Your task to perform on an android device: check the backup settings in the google photos Image 0: 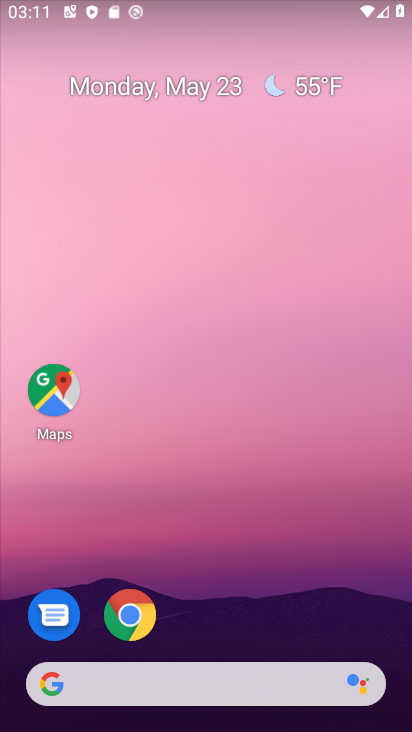
Step 0: drag from (372, 612) to (362, 119)
Your task to perform on an android device: check the backup settings in the google photos Image 1: 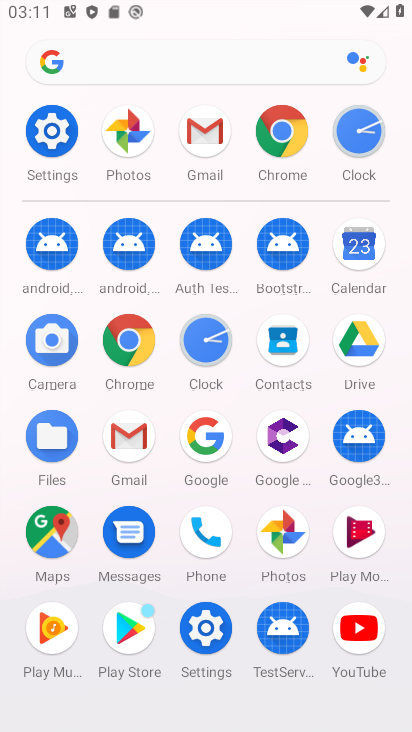
Step 1: click (285, 533)
Your task to perform on an android device: check the backup settings in the google photos Image 2: 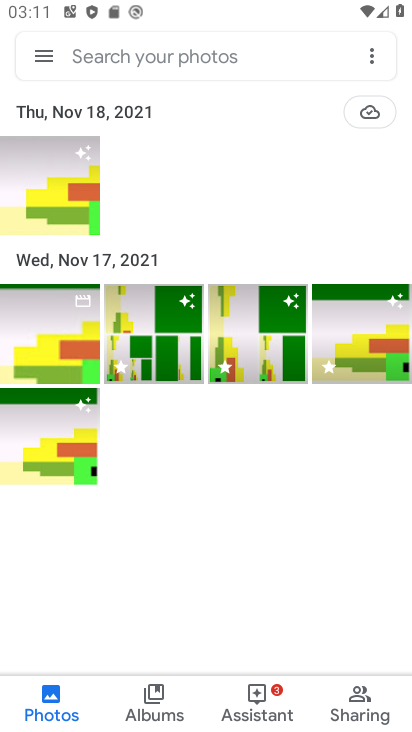
Step 2: click (35, 47)
Your task to perform on an android device: check the backup settings in the google photos Image 3: 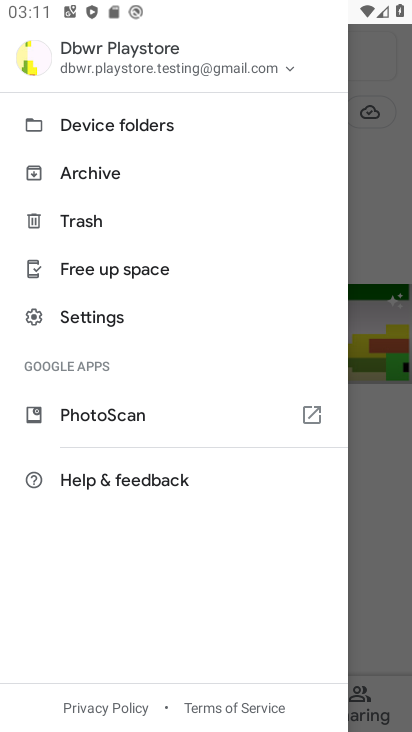
Step 3: drag from (242, 570) to (255, 296)
Your task to perform on an android device: check the backup settings in the google photos Image 4: 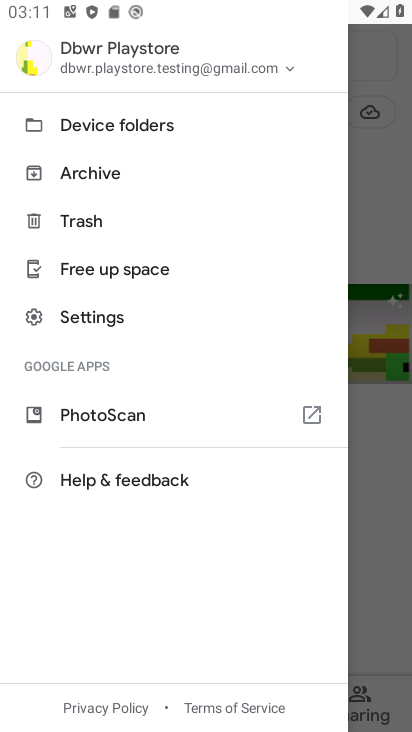
Step 4: drag from (254, 216) to (217, 432)
Your task to perform on an android device: check the backup settings in the google photos Image 5: 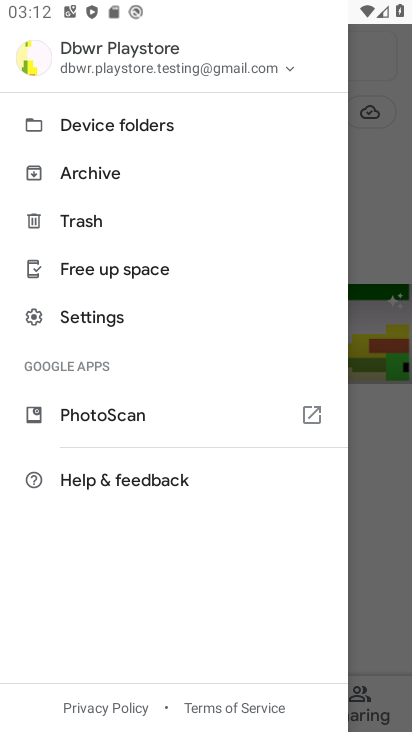
Step 5: drag from (222, 225) to (229, 482)
Your task to perform on an android device: check the backup settings in the google photos Image 6: 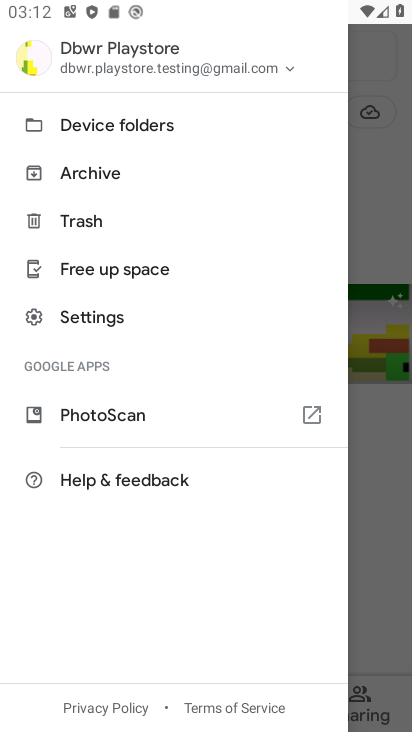
Step 6: click (117, 313)
Your task to perform on an android device: check the backup settings in the google photos Image 7: 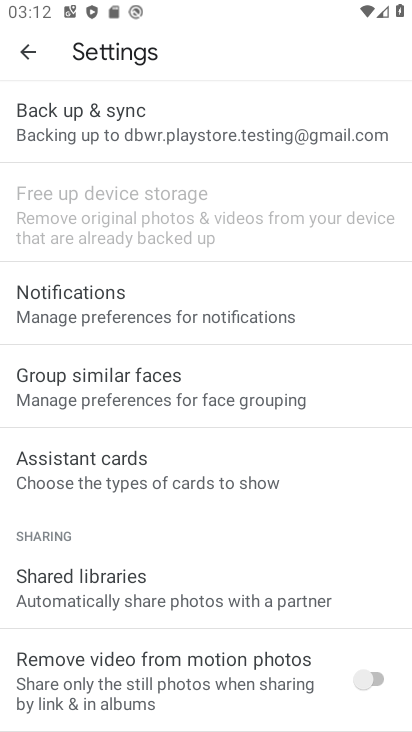
Step 7: drag from (325, 534) to (329, 383)
Your task to perform on an android device: check the backup settings in the google photos Image 8: 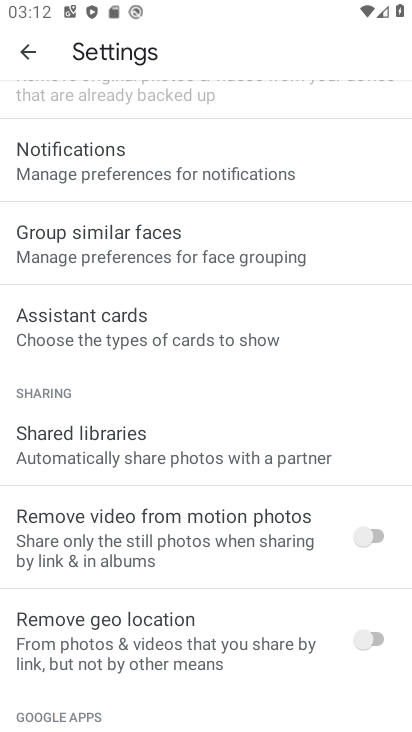
Step 8: drag from (327, 566) to (327, 437)
Your task to perform on an android device: check the backup settings in the google photos Image 9: 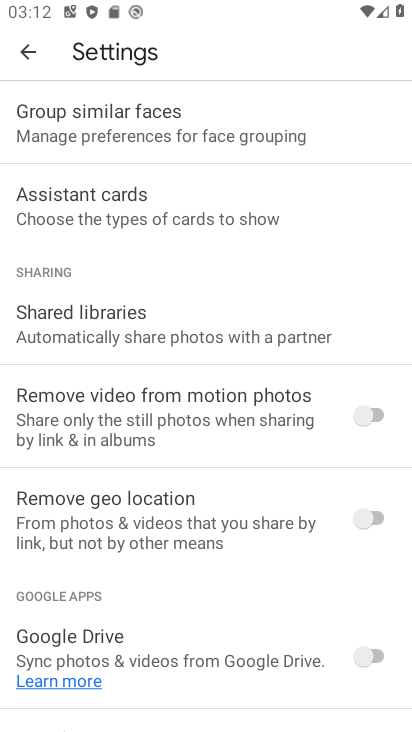
Step 9: drag from (320, 616) to (305, 425)
Your task to perform on an android device: check the backup settings in the google photos Image 10: 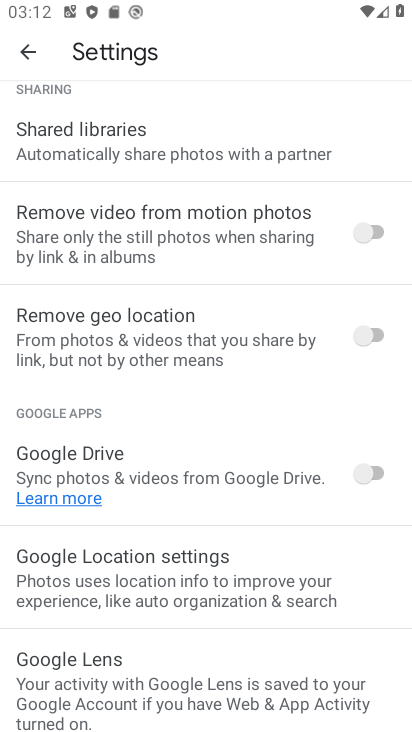
Step 10: drag from (315, 648) to (318, 496)
Your task to perform on an android device: check the backup settings in the google photos Image 11: 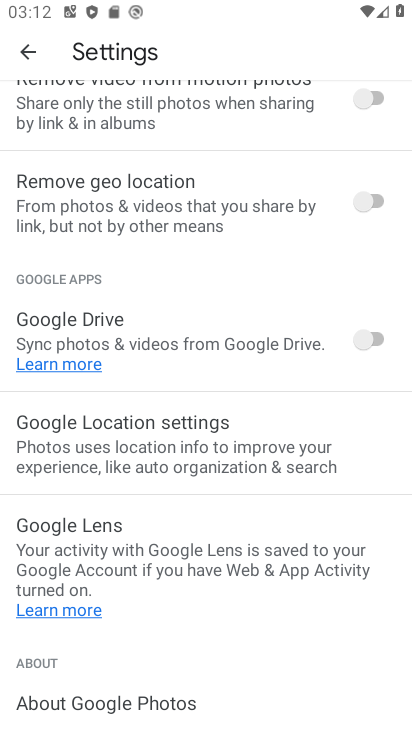
Step 11: drag from (324, 669) to (327, 499)
Your task to perform on an android device: check the backup settings in the google photos Image 12: 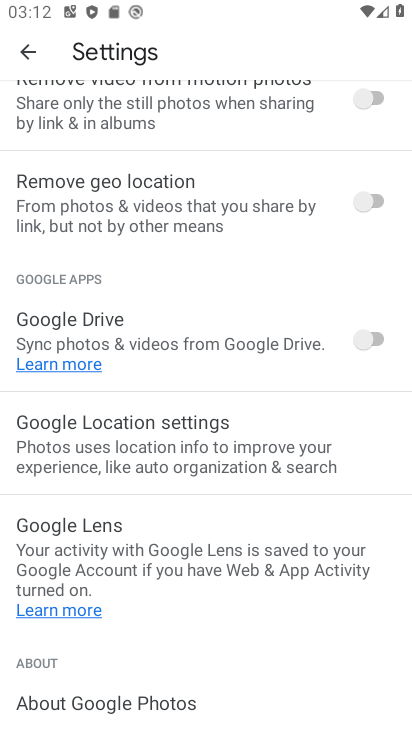
Step 12: drag from (319, 278) to (302, 457)
Your task to perform on an android device: check the backup settings in the google photos Image 13: 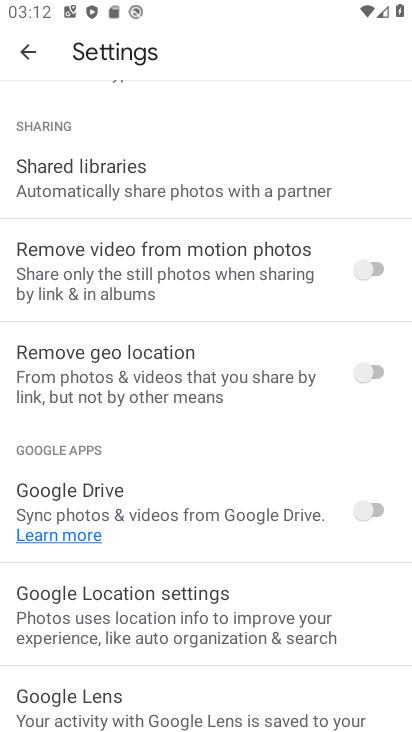
Step 13: drag from (324, 230) to (328, 388)
Your task to perform on an android device: check the backup settings in the google photos Image 14: 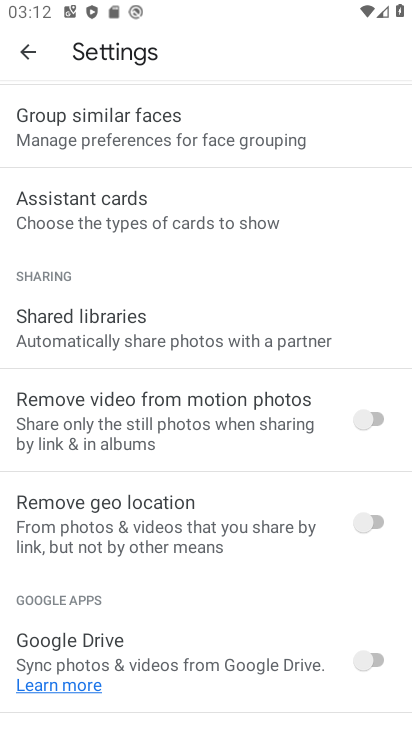
Step 14: drag from (337, 209) to (319, 361)
Your task to perform on an android device: check the backup settings in the google photos Image 15: 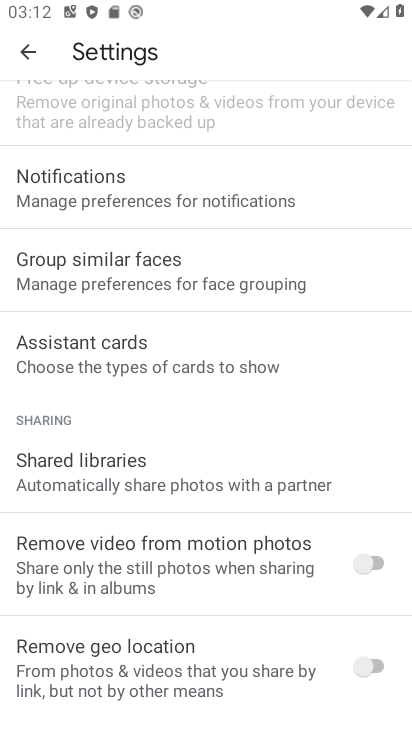
Step 15: drag from (330, 195) to (320, 374)
Your task to perform on an android device: check the backup settings in the google photos Image 16: 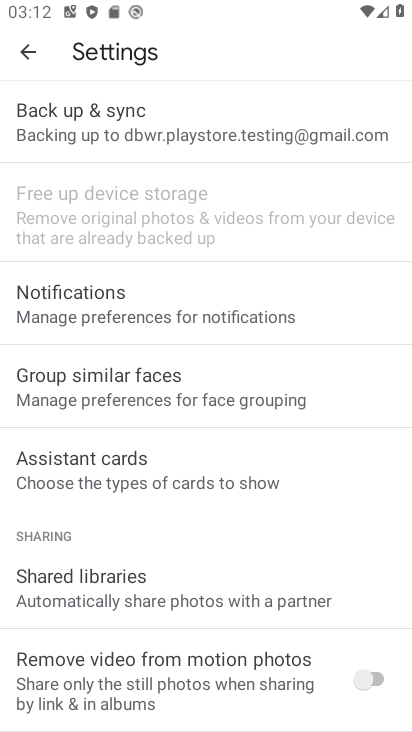
Step 16: click (277, 134)
Your task to perform on an android device: check the backup settings in the google photos Image 17: 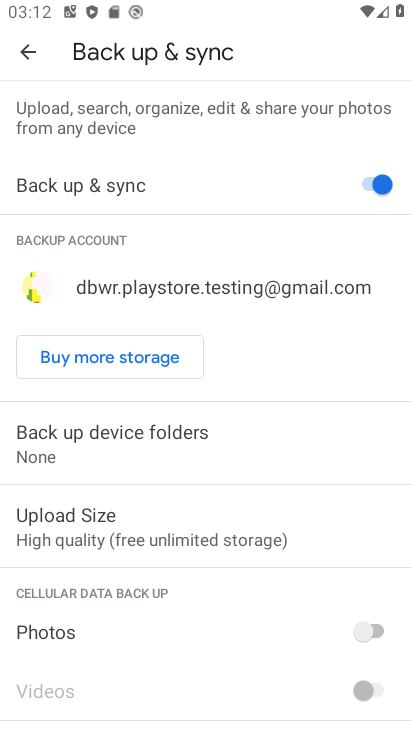
Step 17: task complete